Your task to perform on an android device: turn vacation reply on in the gmail app Image 0: 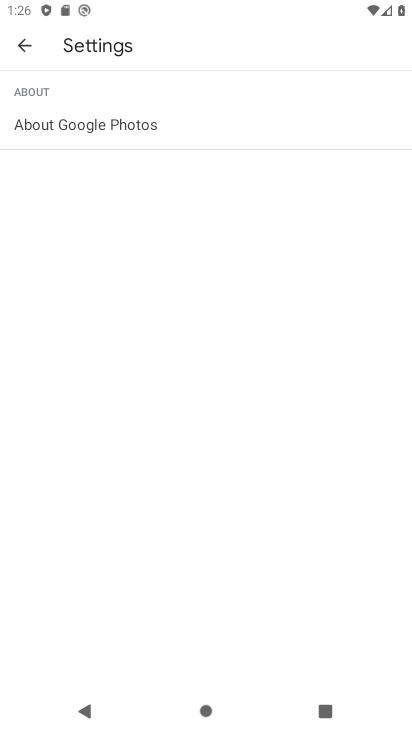
Step 0: press home button
Your task to perform on an android device: turn vacation reply on in the gmail app Image 1: 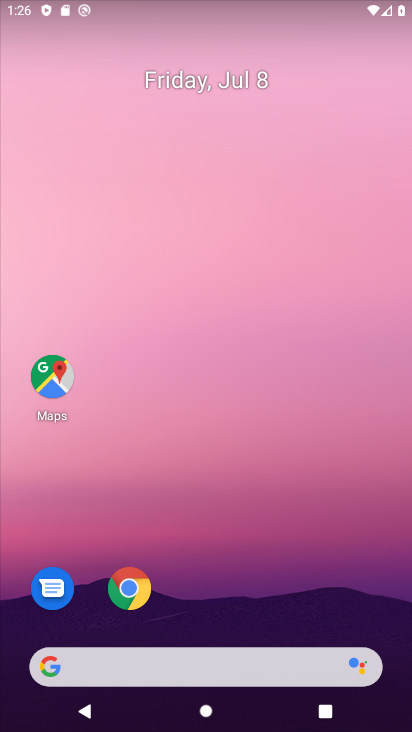
Step 1: drag from (185, 664) to (215, 191)
Your task to perform on an android device: turn vacation reply on in the gmail app Image 2: 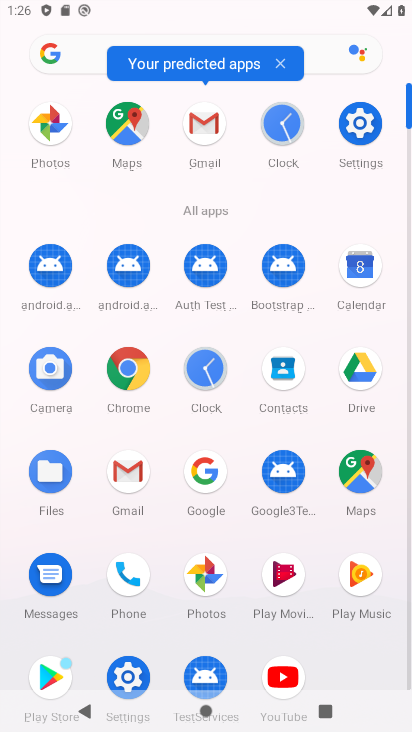
Step 2: click (214, 143)
Your task to perform on an android device: turn vacation reply on in the gmail app Image 3: 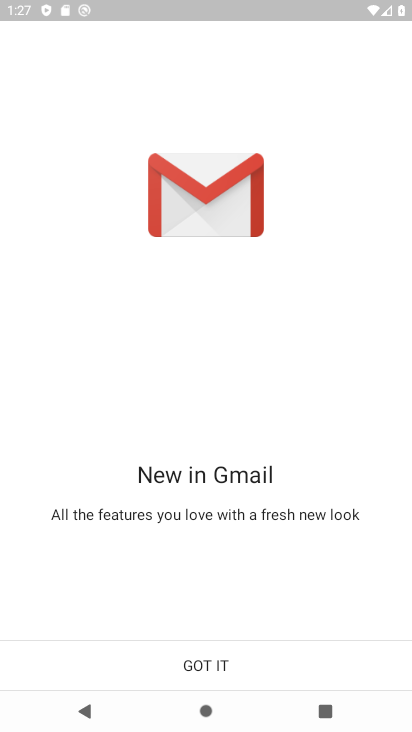
Step 3: click (181, 664)
Your task to perform on an android device: turn vacation reply on in the gmail app Image 4: 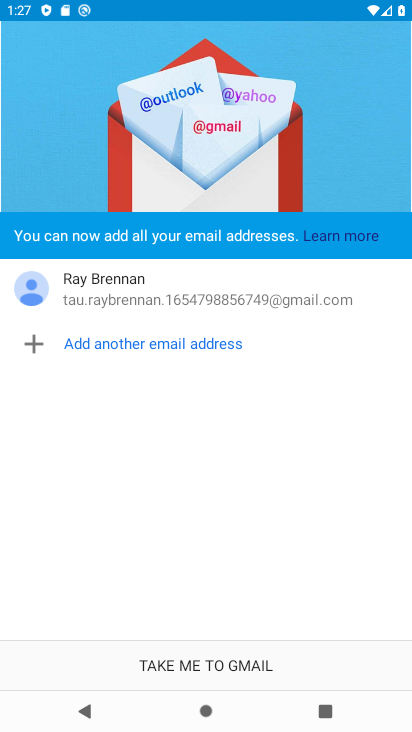
Step 4: click (181, 664)
Your task to perform on an android device: turn vacation reply on in the gmail app Image 5: 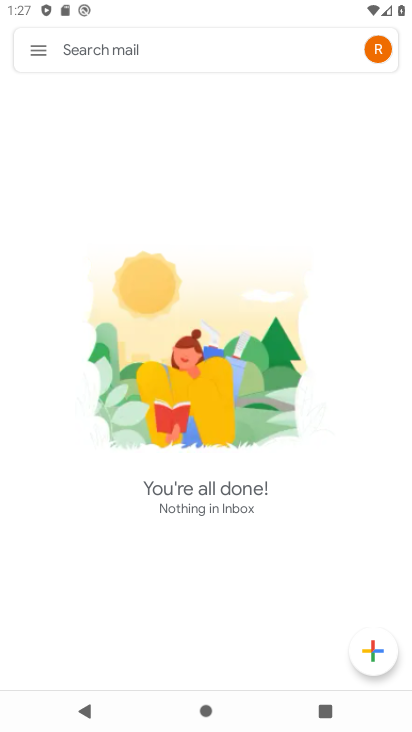
Step 5: click (35, 54)
Your task to perform on an android device: turn vacation reply on in the gmail app Image 6: 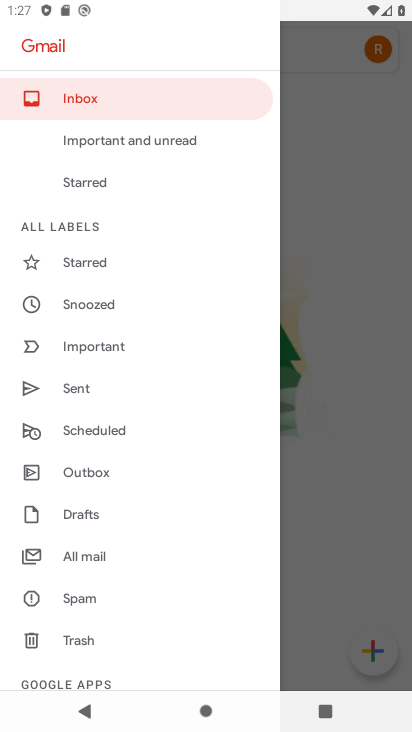
Step 6: drag from (133, 533) to (124, 119)
Your task to perform on an android device: turn vacation reply on in the gmail app Image 7: 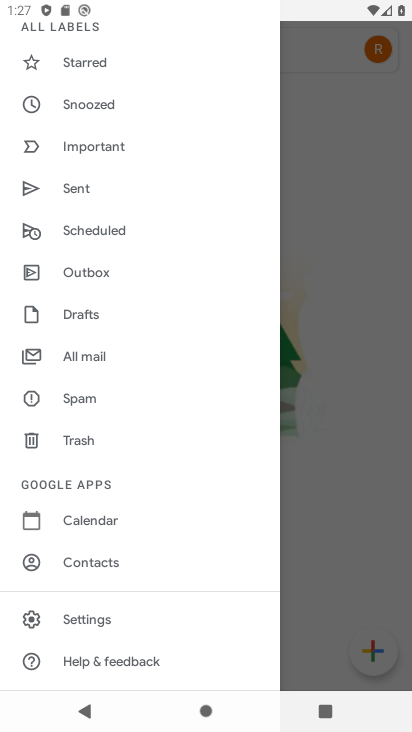
Step 7: click (113, 612)
Your task to perform on an android device: turn vacation reply on in the gmail app Image 8: 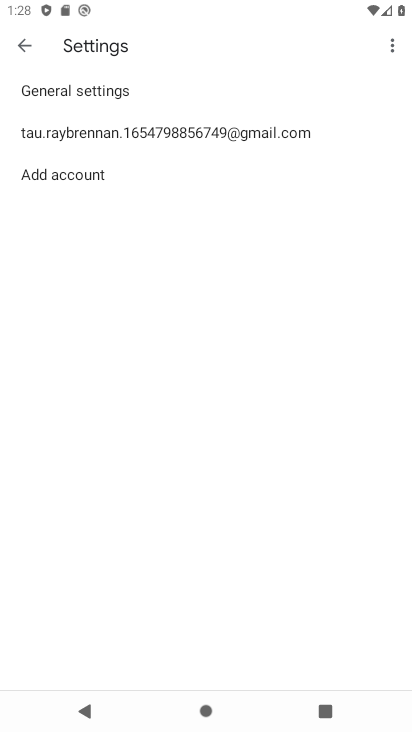
Step 8: click (186, 143)
Your task to perform on an android device: turn vacation reply on in the gmail app Image 9: 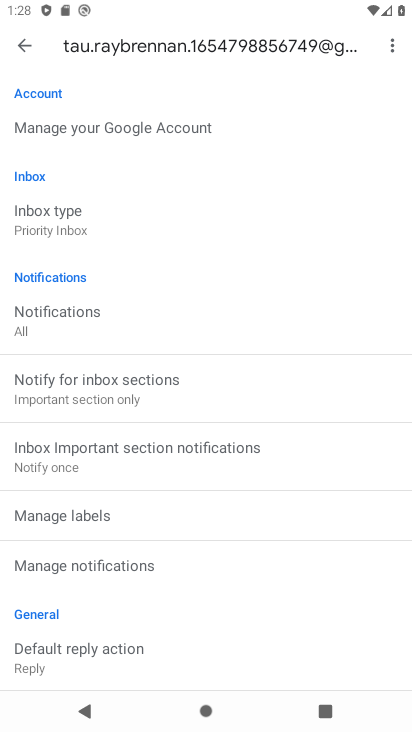
Step 9: drag from (128, 549) to (139, 148)
Your task to perform on an android device: turn vacation reply on in the gmail app Image 10: 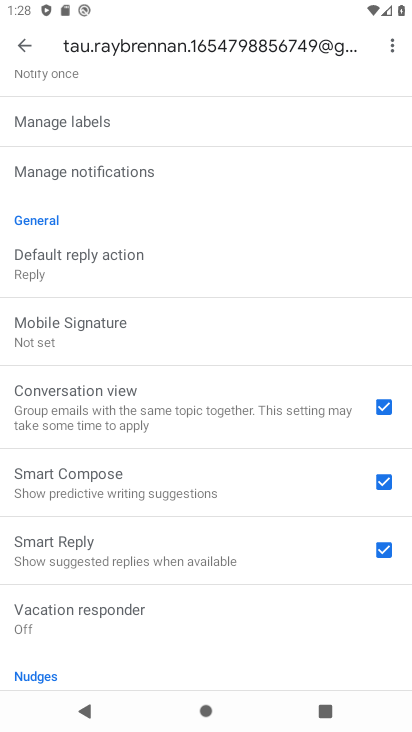
Step 10: click (160, 604)
Your task to perform on an android device: turn vacation reply on in the gmail app Image 11: 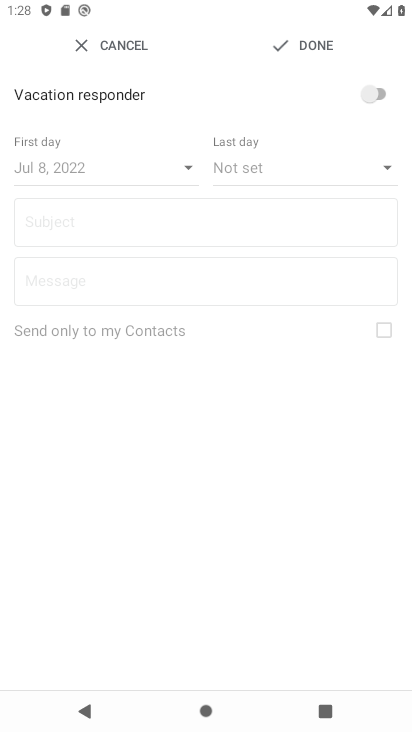
Step 11: click (374, 100)
Your task to perform on an android device: turn vacation reply on in the gmail app Image 12: 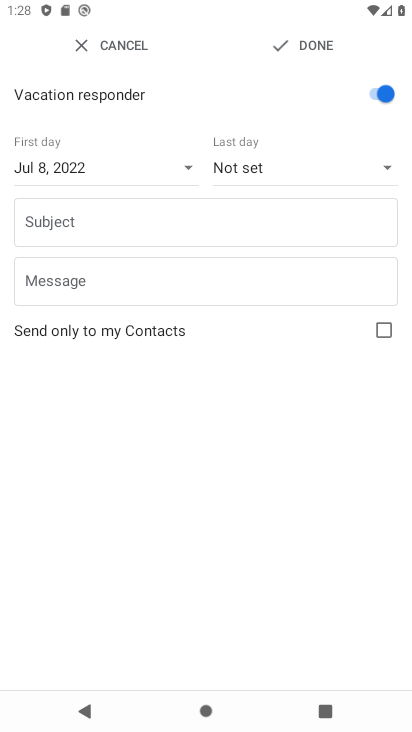
Step 12: task complete